Your task to perform on an android device: Open the map Image 0: 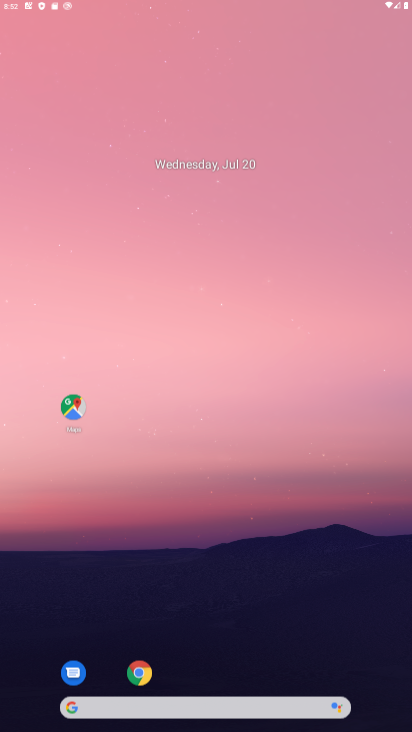
Step 0: click (256, 176)
Your task to perform on an android device: Open the map Image 1: 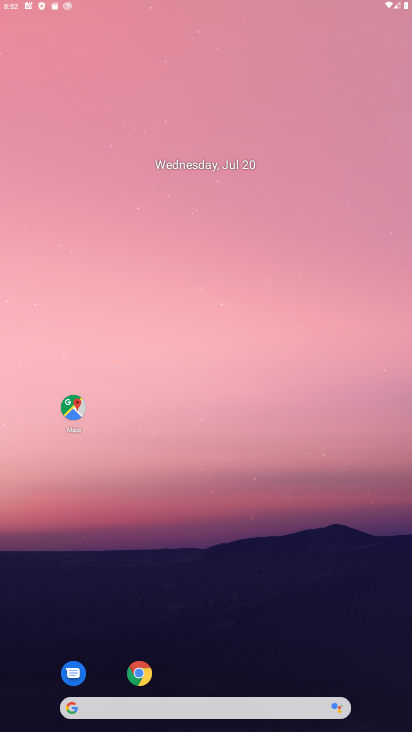
Step 1: drag from (173, 665) to (207, 209)
Your task to perform on an android device: Open the map Image 2: 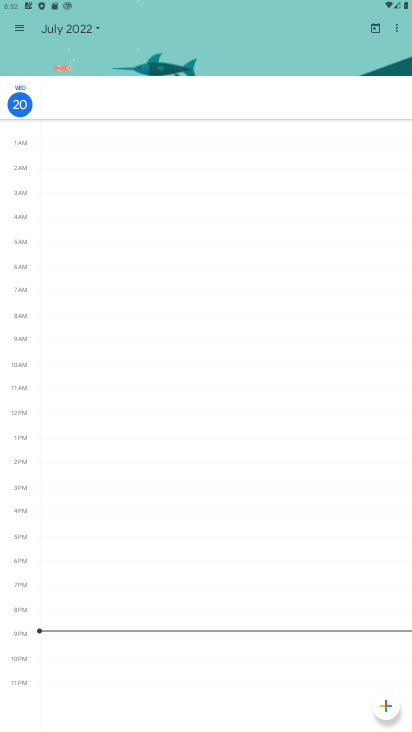
Step 2: drag from (192, 588) to (245, 233)
Your task to perform on an android device: Open the map Image 3: 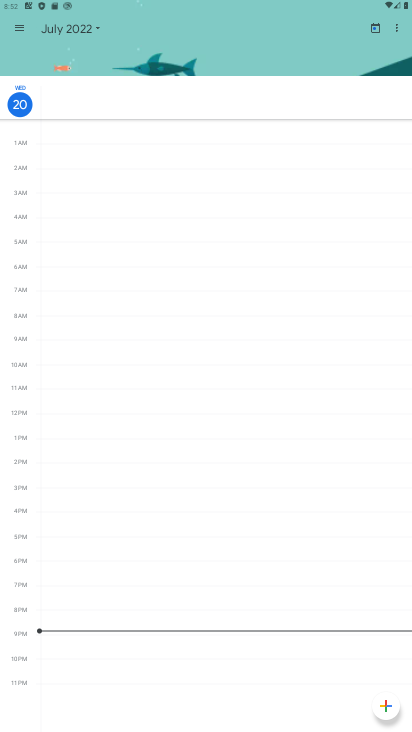
Step 3: click (176, 61)
Your task to perform on an android device: Open the map Image 4: 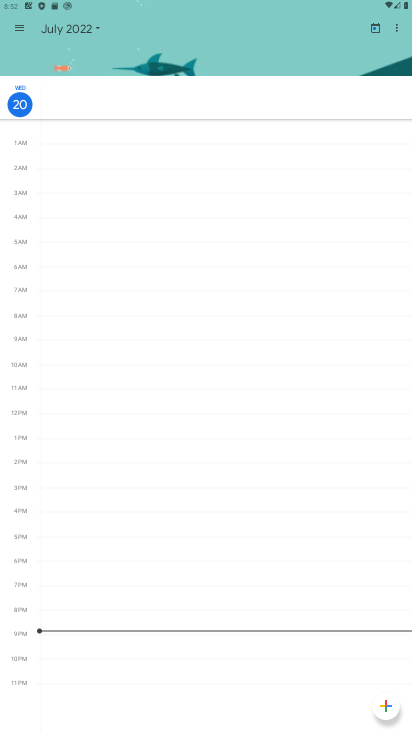
Step 4: press home button
Your task to perform on an android device: Open the map Image 5: 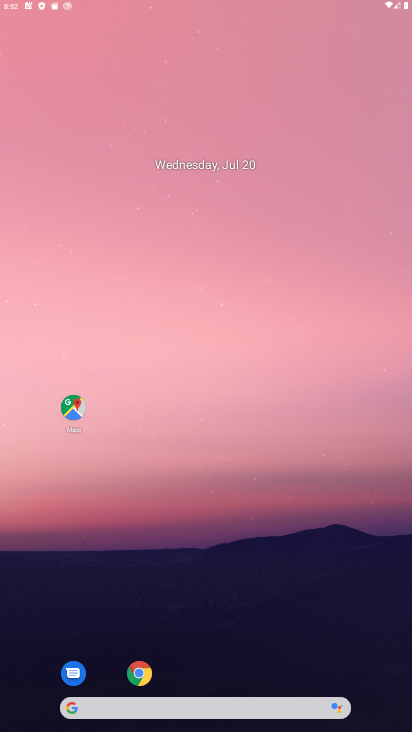
Step 5: drag from (195, 652) to (234, 132)
Your task to perform on an android device: Open the map Image 6: 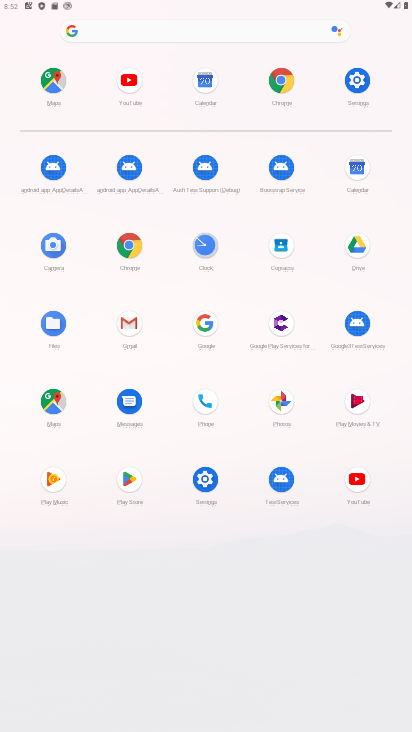
Step 6: click (50, 408)
Your task to perform on an android device: Open the map Image 7: 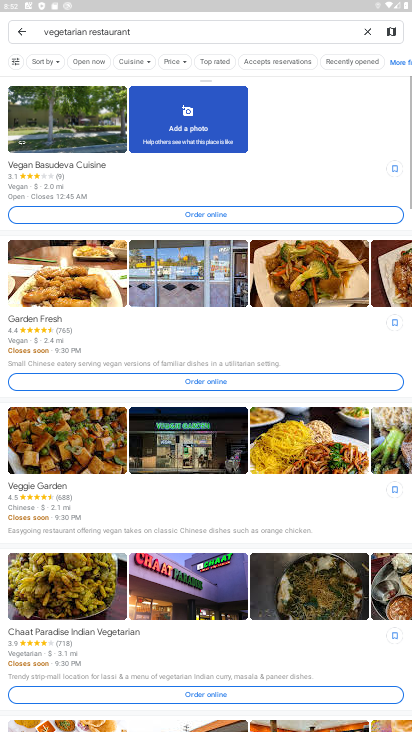
Step 7: task complete